Your task to perform on an android device: change your default location settings in chrome Image 0: 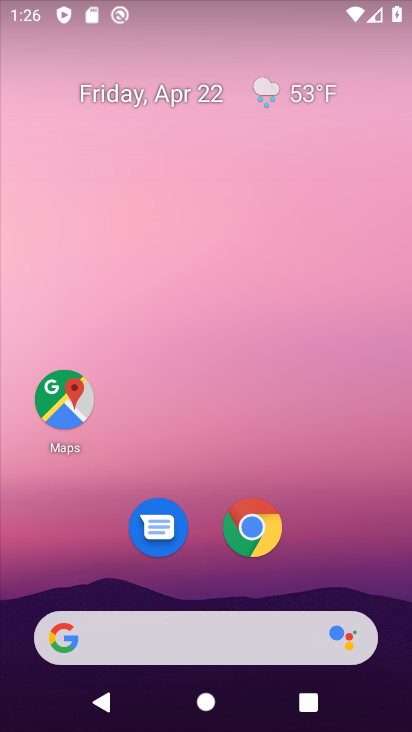
Step 0: drag from (363, 13) to (377, 580)
Your task to perform on an android device: change your default location settings in chrome Image 1: 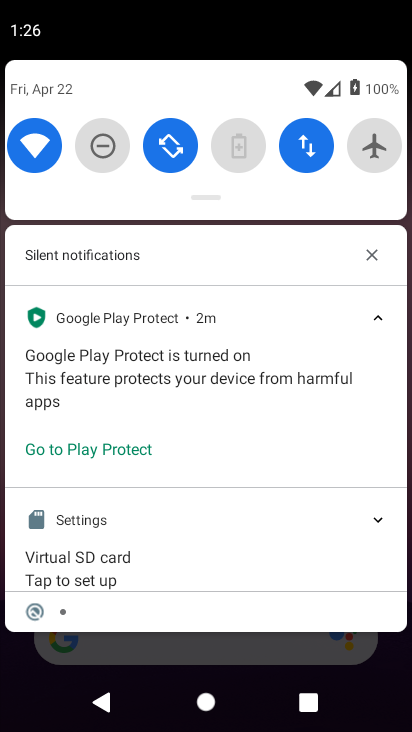
Step 1: drag from (220, 200) to (262, 77)
Your task to perform on an android device: change your default location settings in chrome Image 2: 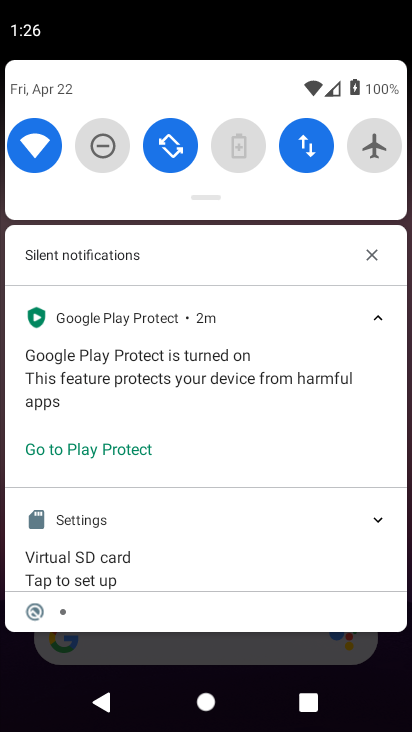
Step 2: drag from (269, 588) to (320, 21)
Your task to perform on an android device: change your default location settings in chrome Image 3: 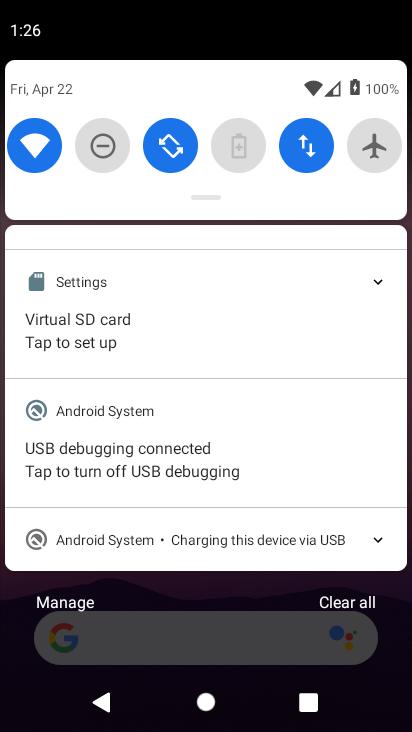
Step 3: press home button
Your task to perform on an android device: change your default location settings in chrome Image 4: 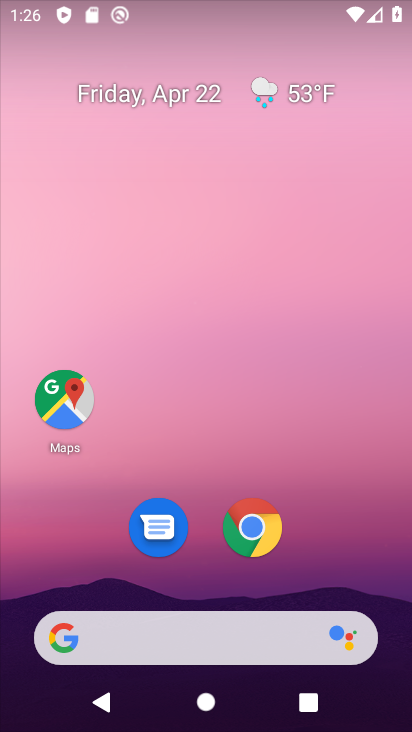
Step 4: click (248, 539)
Your task to perform on an android device: change your default location settings in chrome Image 5: 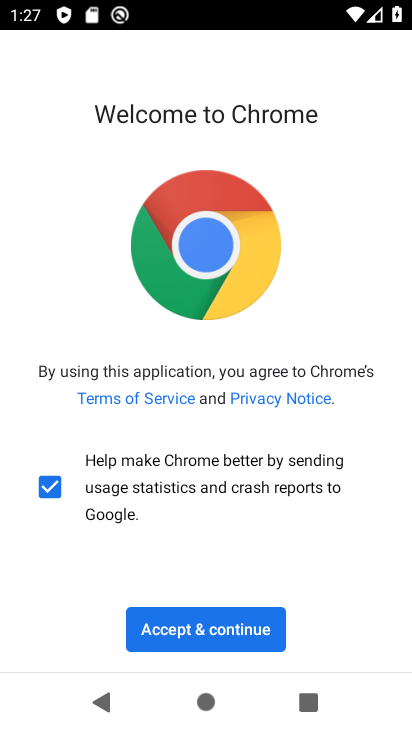
Step 5: click (223, 634)
Your task to perform on an android device: change your default location settings in chrome Image 6: 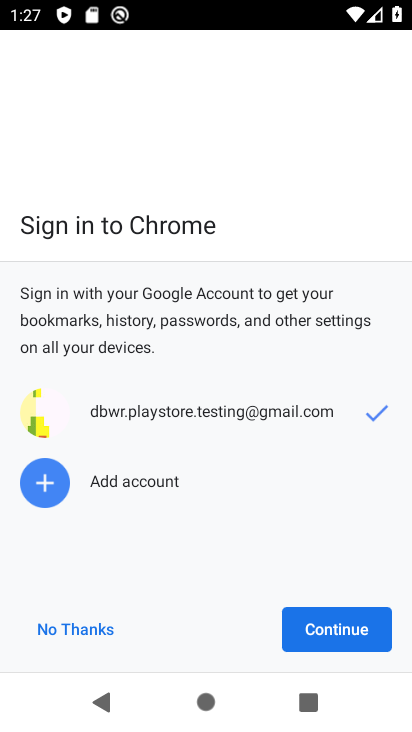
Step 6: click (343, 627)
Your task to perform on an android device: change your default location settings in chrome Image 7: 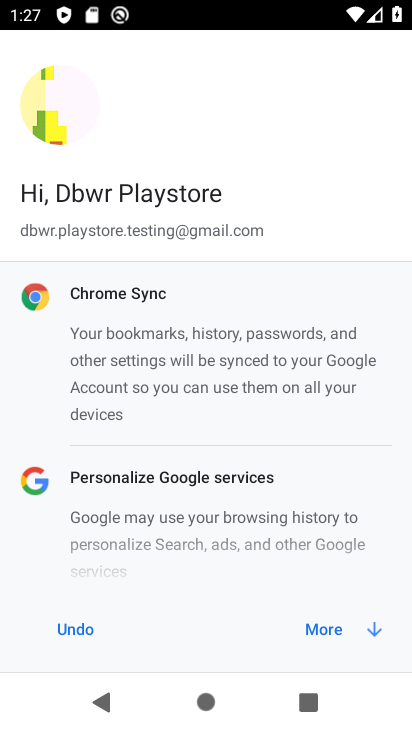
Step 7: click (343, 627)
Your task to perform on an android device: change your default location settings in chrome Image 8: 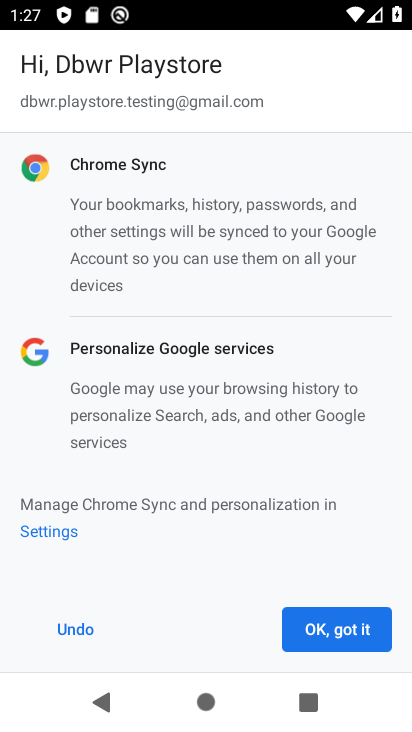
Step 8: click (343, 627)
Your task to perform on an android device: change your default location settings in chrome Image 9: 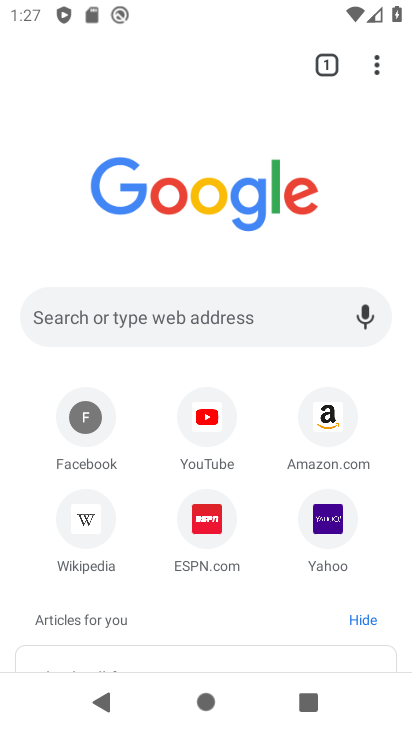
Step 9: click (378, 65)
Your task to perform on an android device: change your default location settings in chrome Image 10: 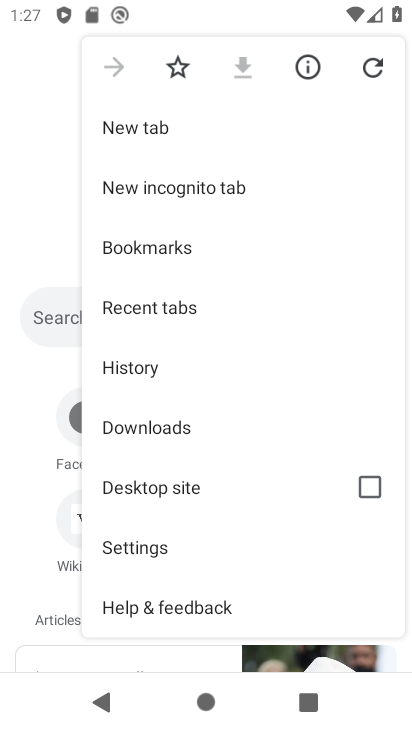
Step 10: click (191, 545)
Your task to perform on an android device: change your default location settings in chrome Image 11: 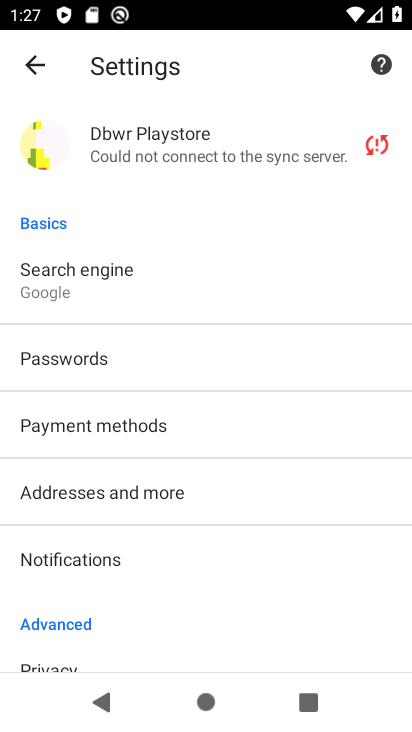
Step 11: drag from (149, 598) to (140, 229)
Your task to perform on an android device: change your default location settings in chrome Image 12: 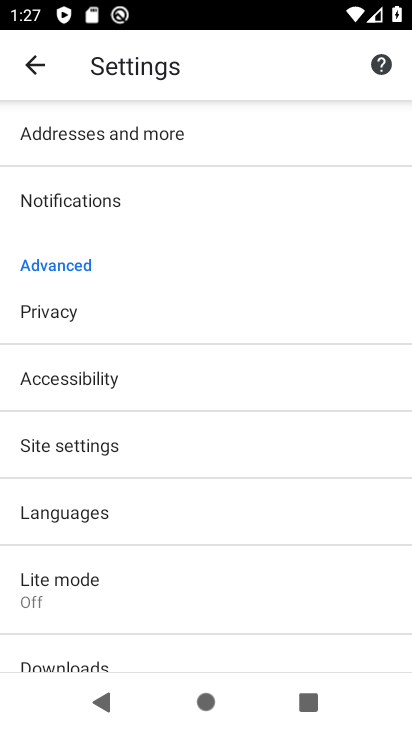
Step 12: click (102, 444)
Your task to perform on an android device: change your default location settings in chrome Image 13: 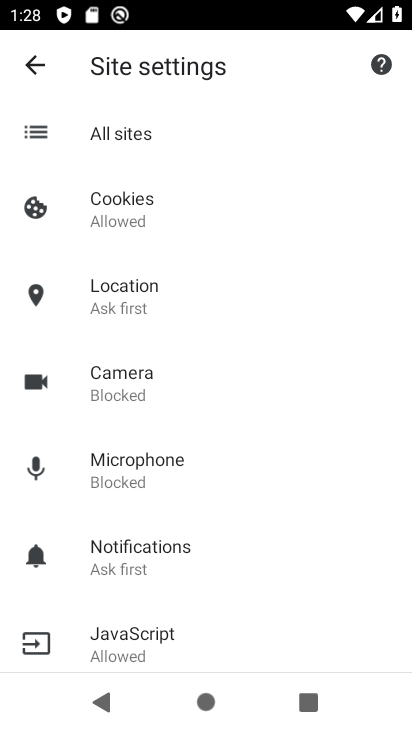
Step 13: drag from (224, 630) to (182, 503)
Your task to perform on an android device: change your default location settings in chrome Image 14: 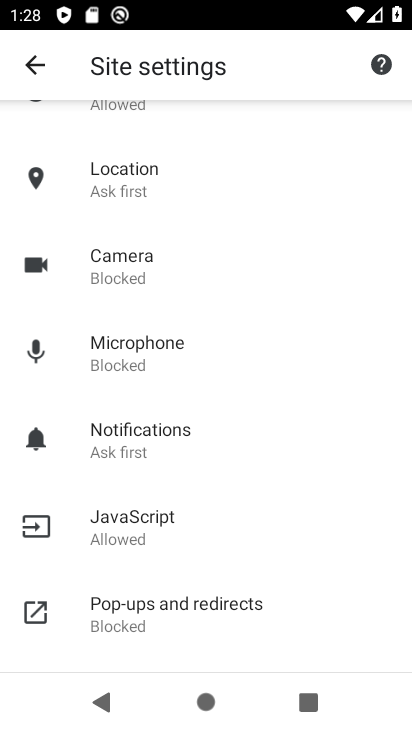
Step 14: click (136, 185)
Your task to perform on an android device: change your default location settings in chrome Image 15: 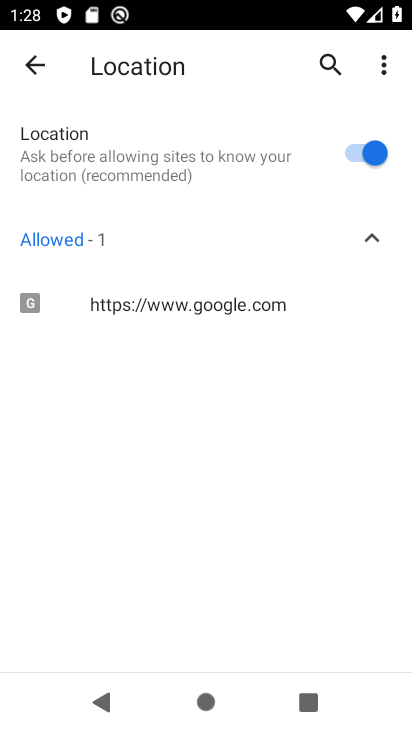
Step 15: click (362, 146)
Your task to perform on an android device: change your default location settings in chrome Image 16: 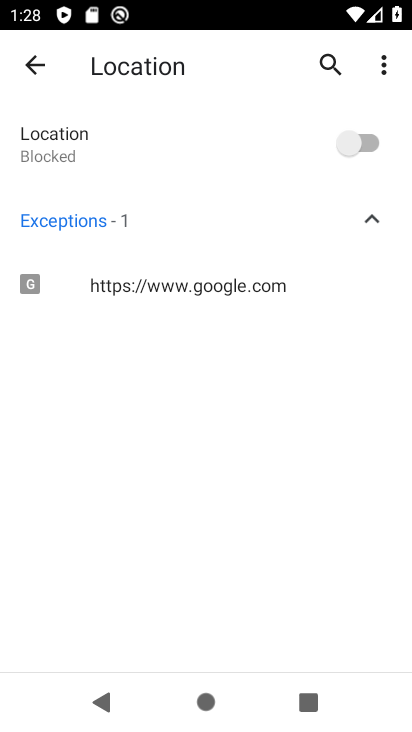
Step 16: task complete